Your task to perform on an android device: Open maps Image 0: 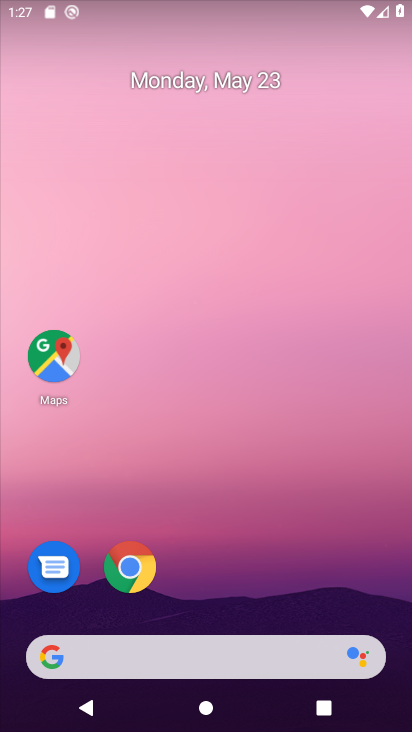
Step 0: drag from (280, 588) to (267, 127)
Your task to perform on an android device: Open maps Image 1: 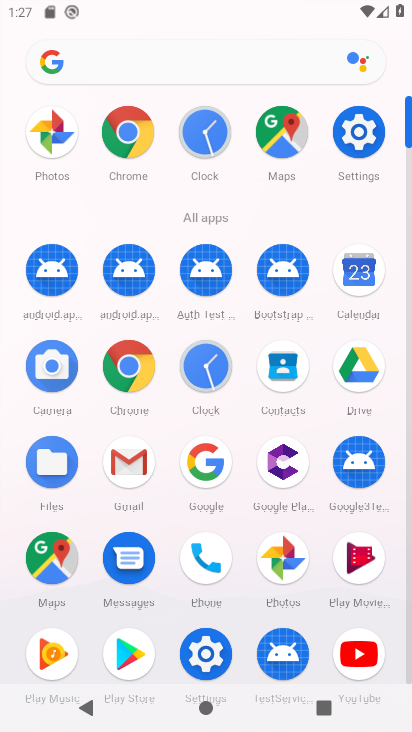
Step 1: click (49, 565)
Your task to perform on an android device: Open maps Image 2: 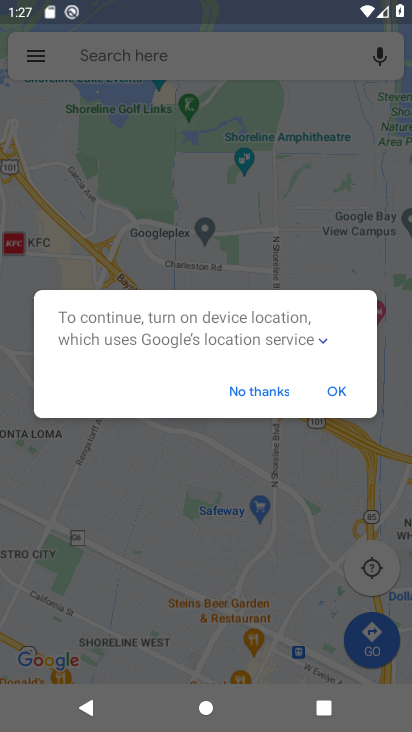
Step 2: click (341, 394)
Your task to perform on an android device: Open maps Image 3: 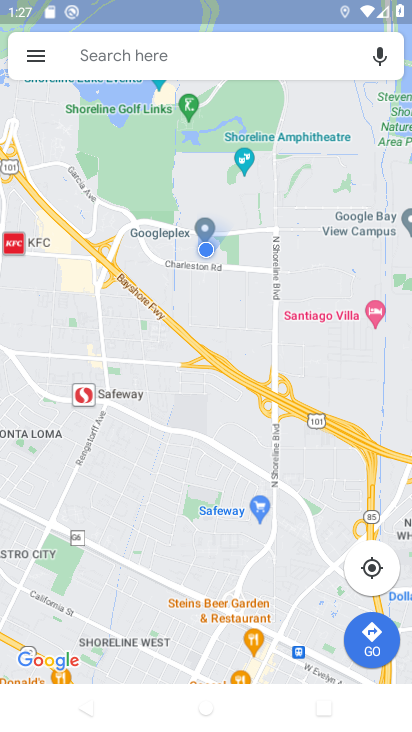
Step 3: task complete